Your task to perform on an android device: Go to internet settings Image 0: 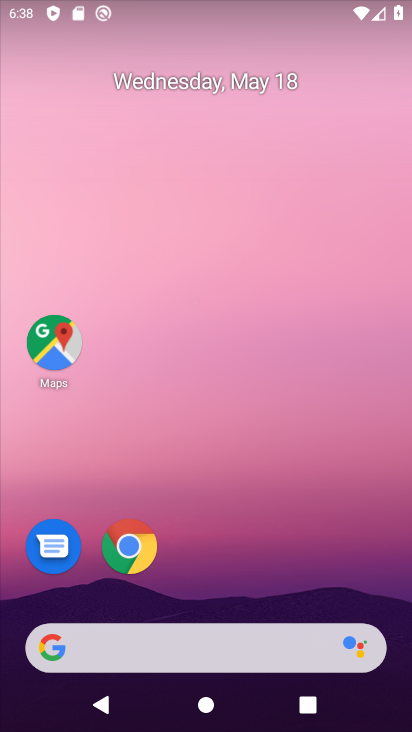
Step 0: drag from (387, 616) to (318, 224)
Your task to perform on an android device: Go to internet settings Image 1: 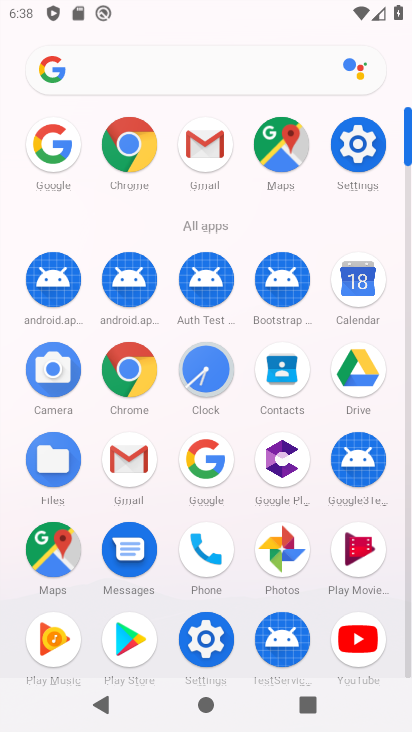
Step 1: click (363, 154)
Your task to perform on an android device: Go to internet settings Image 2: 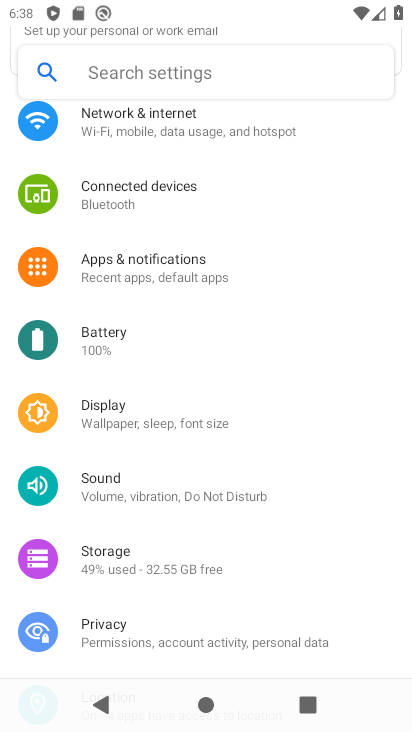
Step 2: click (296, 135)
Your task to perform on an android device: Go to internet settings Image 3: 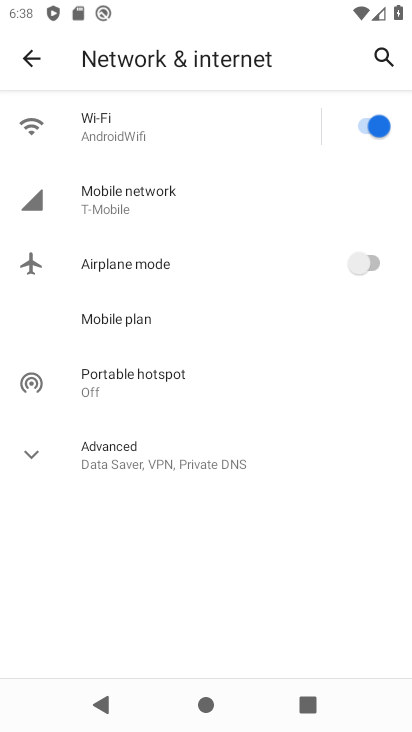
Step 3: task complete